Your task to perform on an android device: turn smart compose on in the gmail app Image 0: 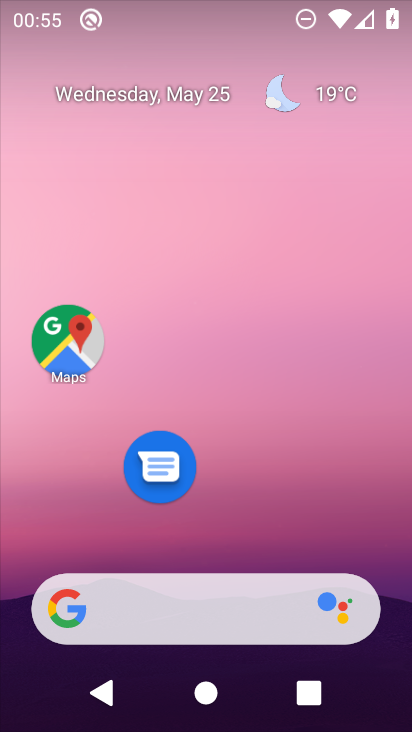
Step 0: click (313, 432)
Your task to perform on an android device: turn smart compose on in the gmail app Image 1: 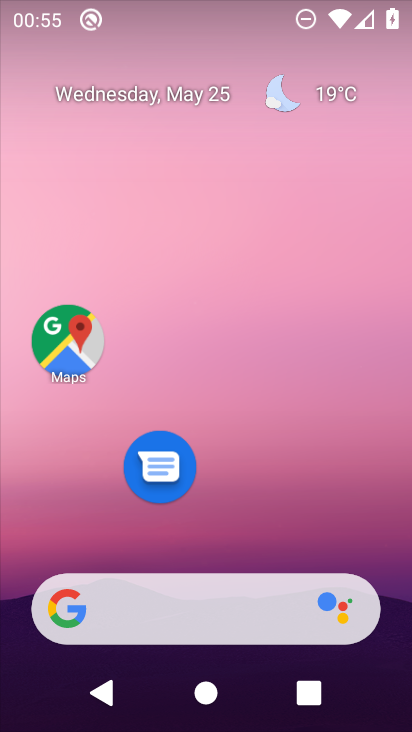
Step 1: drag from (279, 360) to (325, 70)
Your task to perform on an android device: turn smart compose on in the gmail app Image 2: 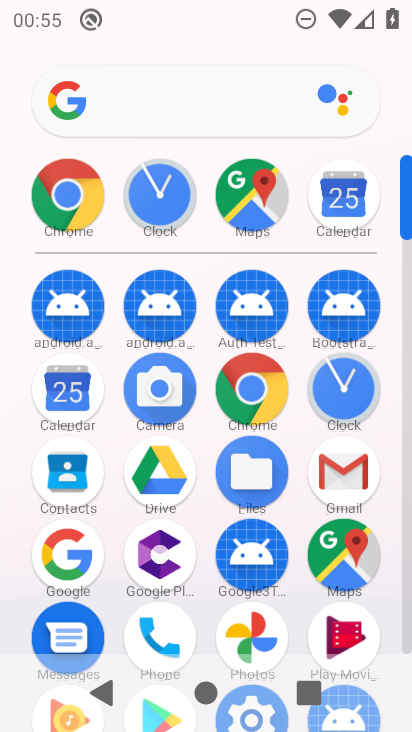
Step 2: drag from (194, 596) to (222, 412)
Your task to perform on an android device: turn smart compose on in the gmail app Image 3: 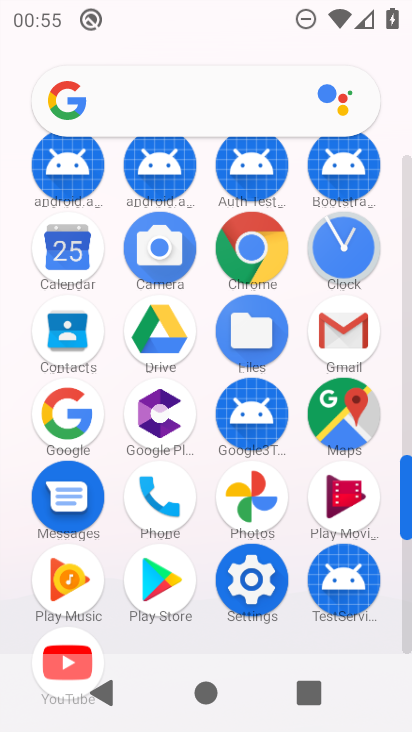
Step 3: click (358, 333)
Your task to perform on an android device: turn smart compose on in the gmail app Image 4: 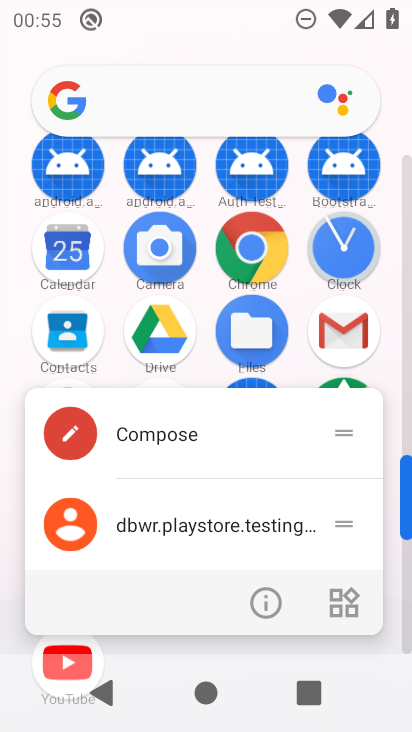
Step 4: click (278, 587)
Your task to perform on an android device: turn smart compose on in the gmail app Image 5: 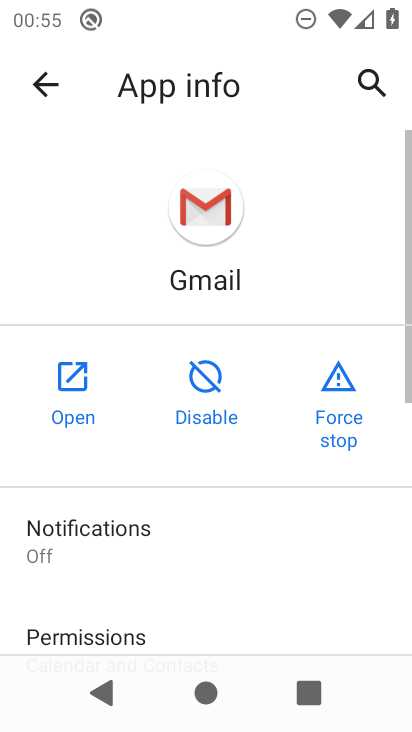
Step 5: click (97, 363)
Your task to perform on an android device: turn smart compose on in the gmail app Image 6: 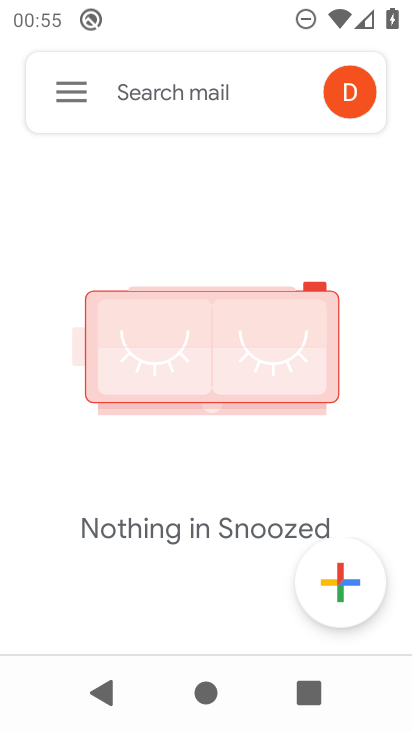
Step 6: drag from (258, 578) to (288, 360)
Your task to perform on an android device: turn smart compose on in the gmail app Image 7: 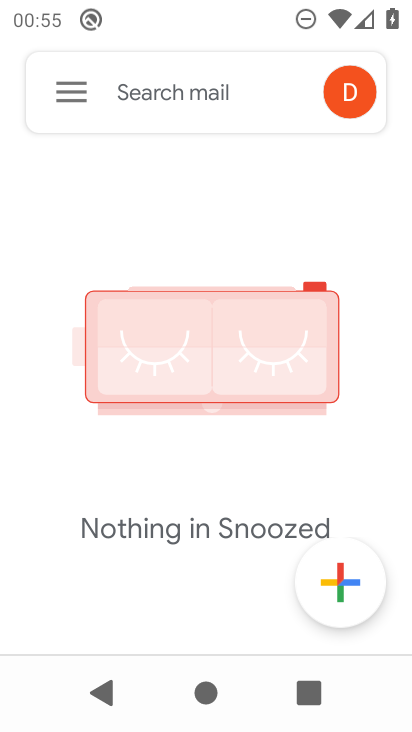
Step 7: drag from (180, 539) to (265, 66)
Your task to perform on an android device: turn smart compose on in the gmail app Image 8: 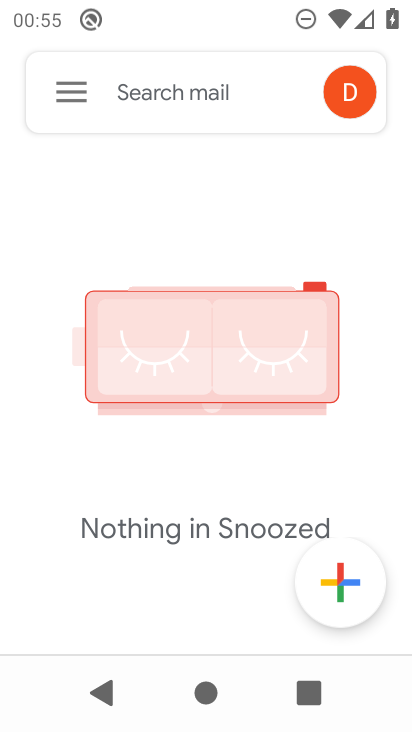
Step 8: click (71, 80)
Your task to perform on an android device: turn smart compose on in the gmail app Image 9: 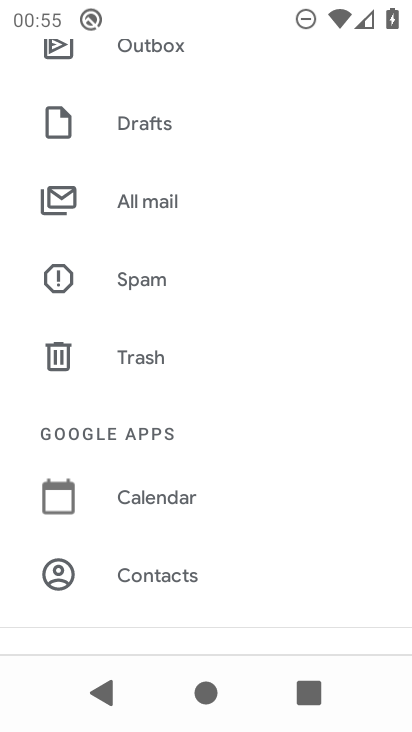
Step 9: drag from (206, 531) to (290, 188)
Your task to perform on an android device: turn smart compose on in the gmail app Image 10: 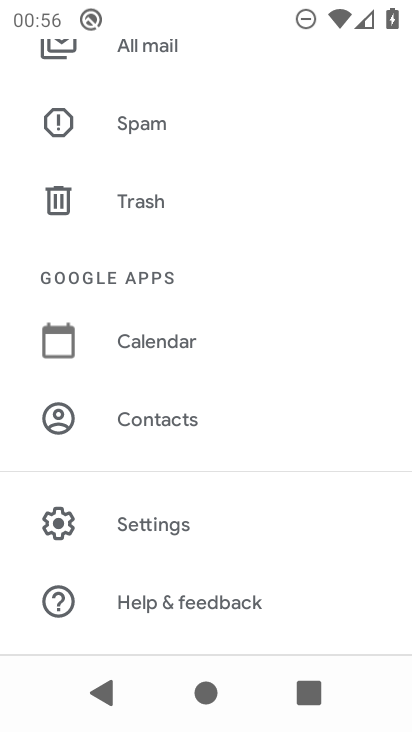
Step 10: click (181, 506)
Your task to perform on an android device: turn smart compose on in the gmail app Image 11: 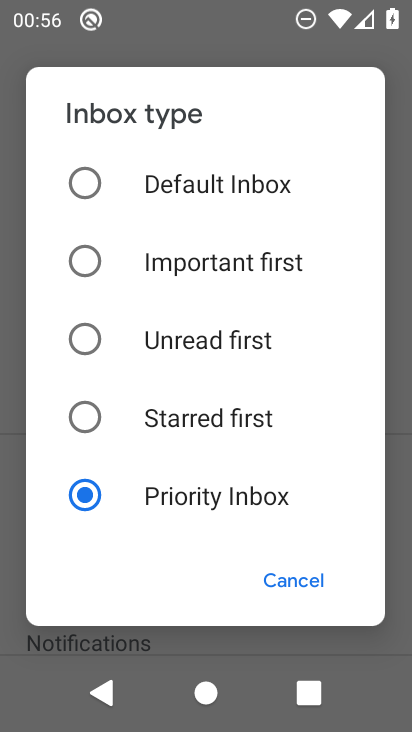
Step 11: drag from (191, 458) to (240, 230)
Your task to perform on an android device: turn smart compose on in the gmail app Image 12: 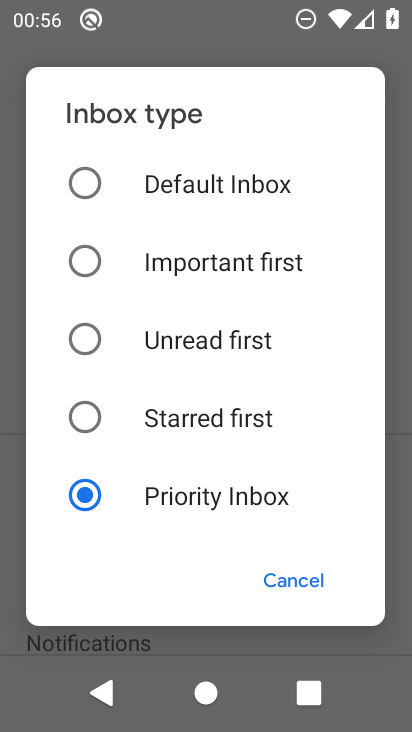
Step 12: click (317, 585)
Your task to perform on an android device: turn smart compose on in the gmail app Image 13: 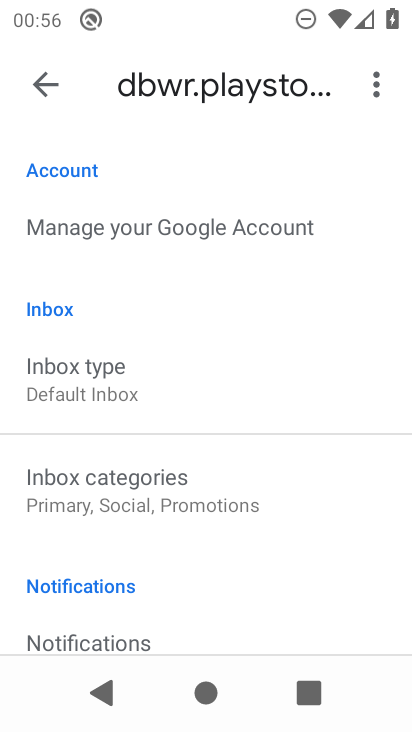
Step 13: task complete